Your task to perform on an android device: toggle location history Image 0: 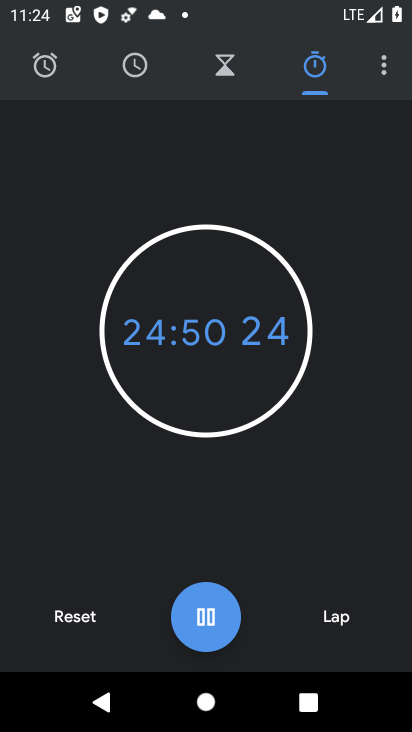
Step 0: press home button
Your task to perform on an android device: toggle location history Image 1: 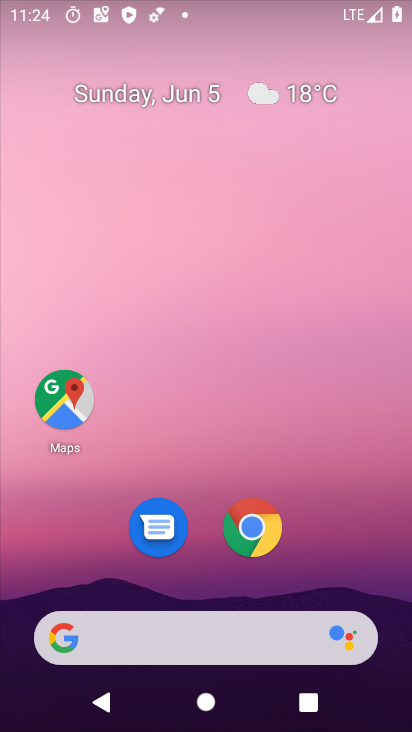
Step 1: drag from (277, 282) to (286, 30)
Your task to perform on an android device: toggle location history Image 2: 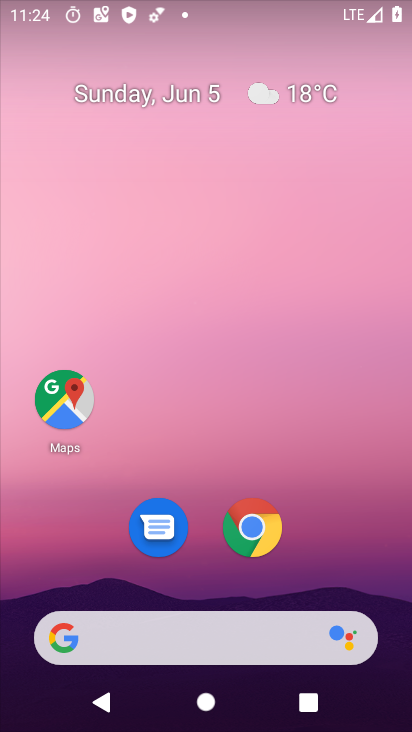
Step 2: drag from (341, 532) to (242, 23)
Your task to perform on an android device: toggle location history Image 3: 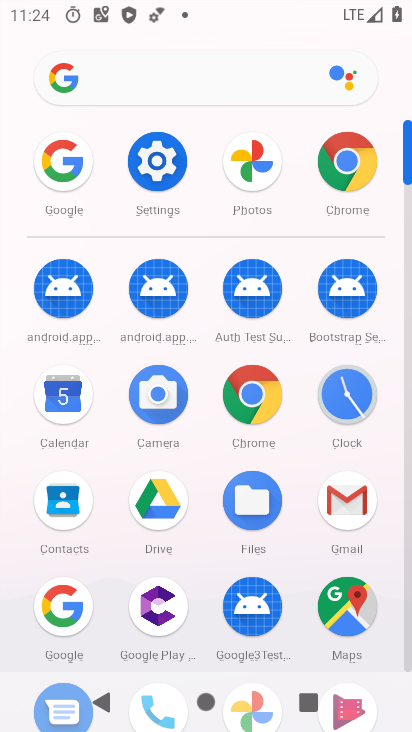
Step 3: click (159, 164)
Your task to perform on an android device: toggle location history Image 4: 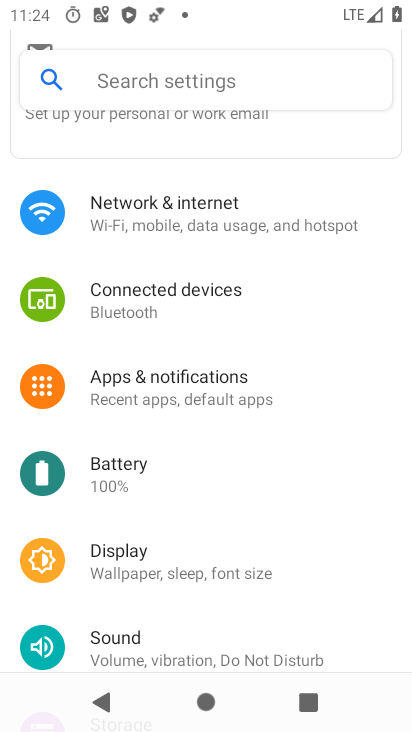
Step 4: drag from (249, 596) to (225, 5)
Your task to perform on an android device: toggle location history Image 5: 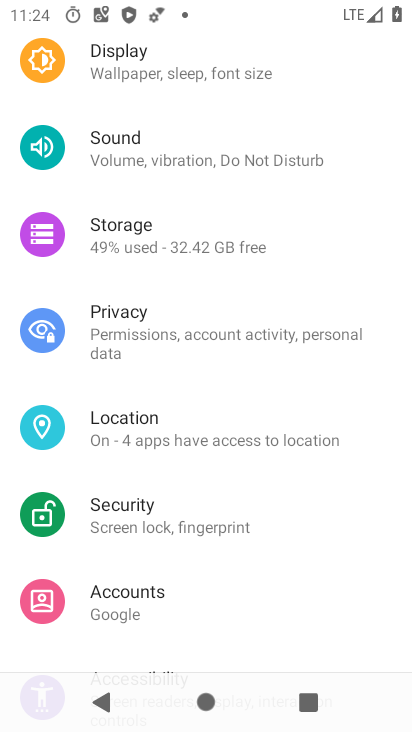
Step 5: click (212, 432)
Your task to perform on an android device: toggle location history Image 6: 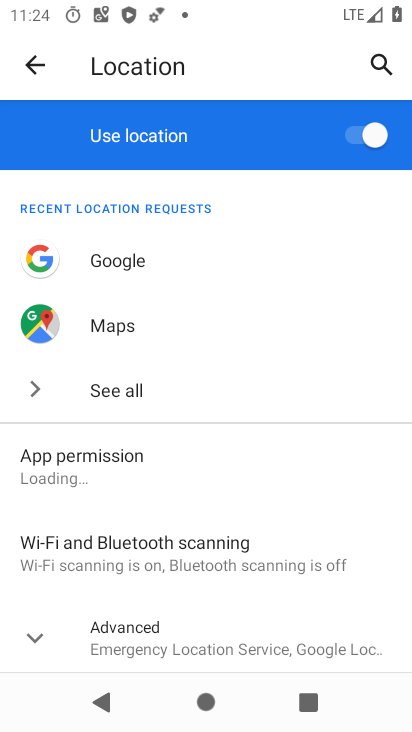
Step 6: click (230, 631)
Your task to perform on an android device: toggle location history Image 7: 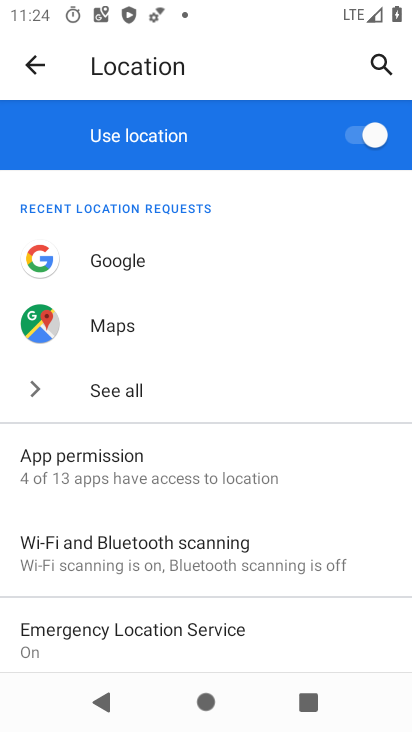
Step 7: drag from (191, 561) to (138, 95)
Your task to perform on an android device: toggle location history Image 8: 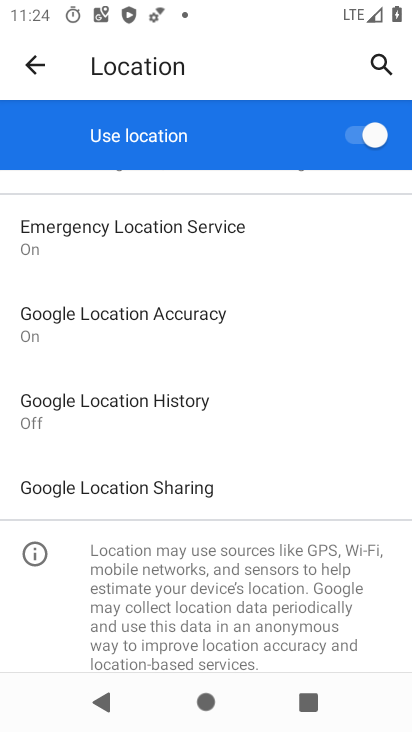
Step 8: click (139, 387)
Your task to perform on an android device: toggle location history Image 9: 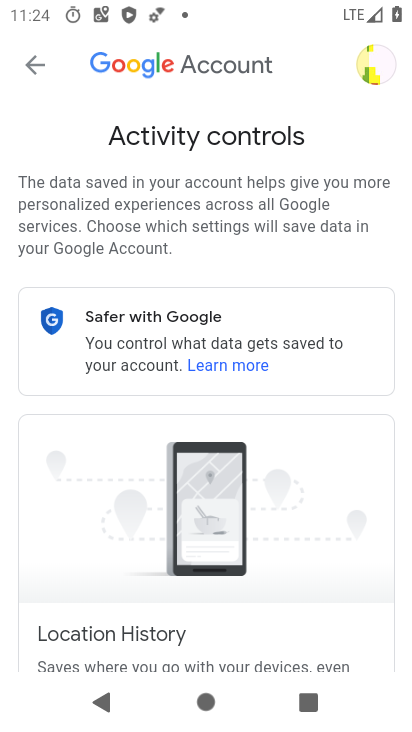
Step 9: drag from (280, 616) to (241, 106)
Your task to perform on an android device: toggle location history Image 10: 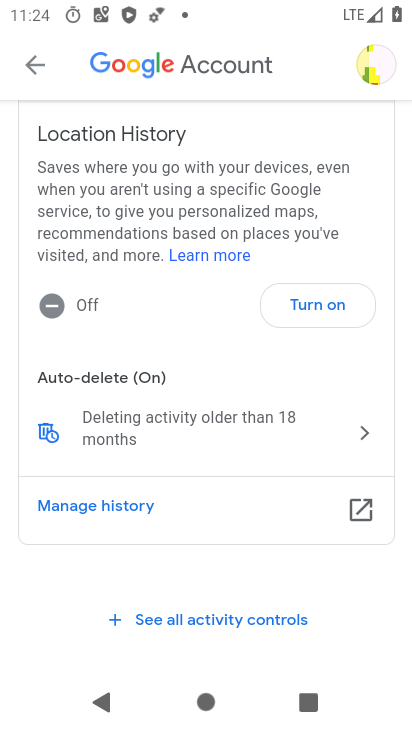
Step 10: click (303, 310)
Your task to perform on an android device: toggle location history Image 11: 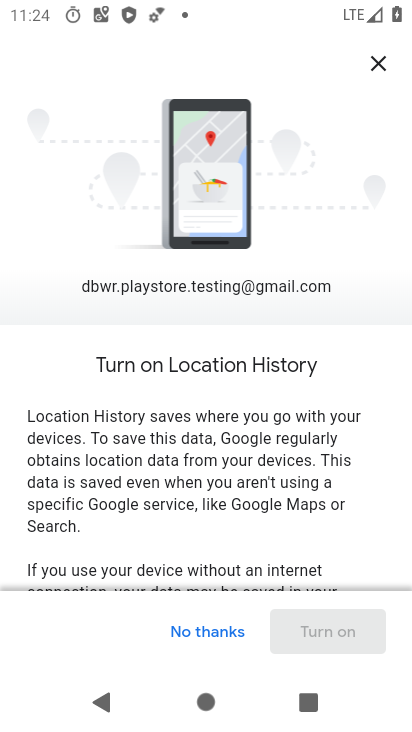
Step 11: drag from (223, 532) to (188, 37)
Your task to perform on an android device: toggle location history Image 12: 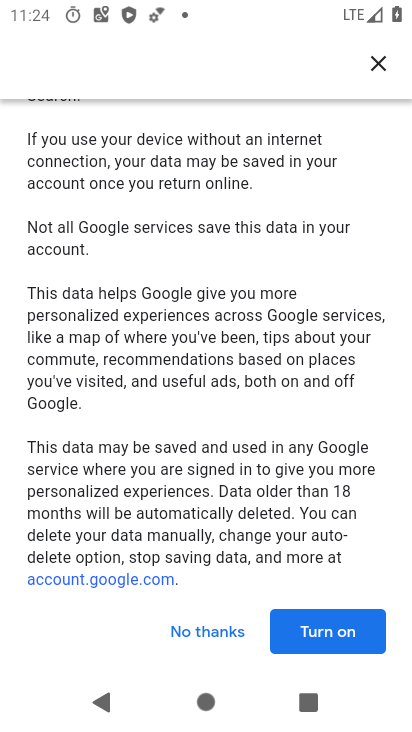
Step 12: click (328, 634)
Your task to perform on an android device: toggle location history Image 13: 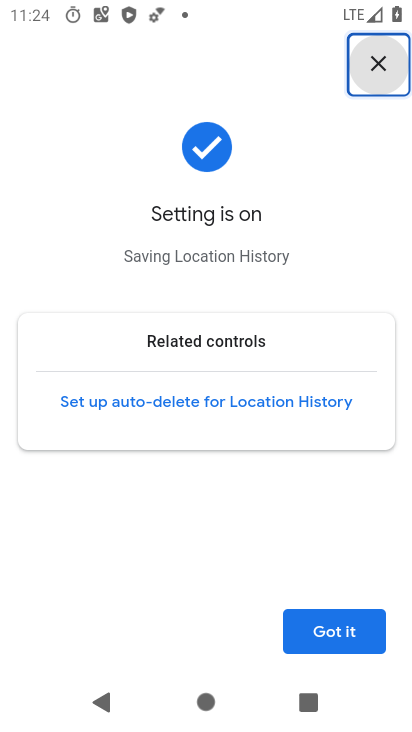
Step 13: click (355, 620)
Your task to perform on an android device: toggle location history Image 14: 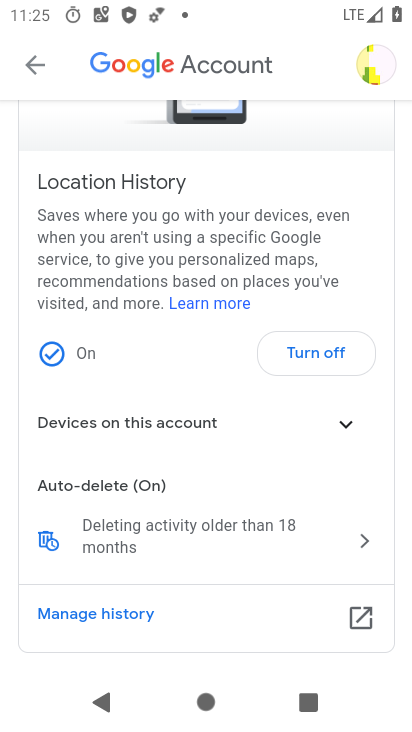
Step 14: task complete